Your task to perform on an android device: change alarm snooze length Image 0: 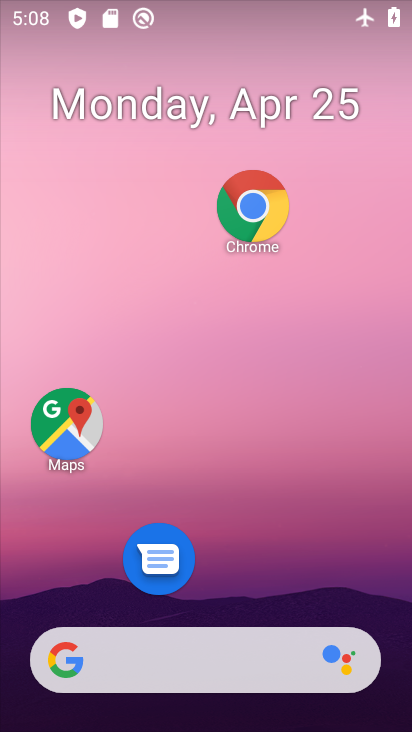
Step 0: drag from (271, 548) to (231, 170)
Your task to perform on an android device: change alarm snooze length Image 1: 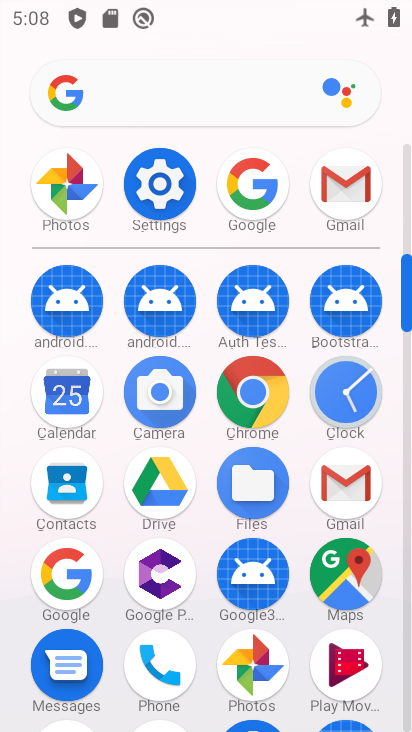
Step 1: click (349, 411)
Your task to perform on an android device: change alarm snooze length Image 2: 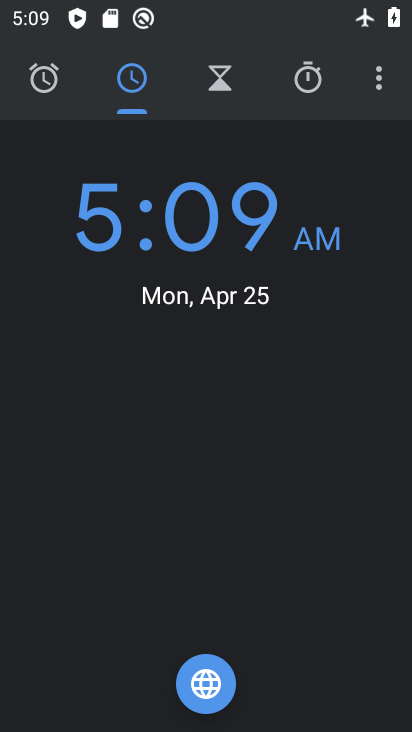
Step 2: click (377, 90)
Your task to perform on an android device: change alarm snooze length Image 3: 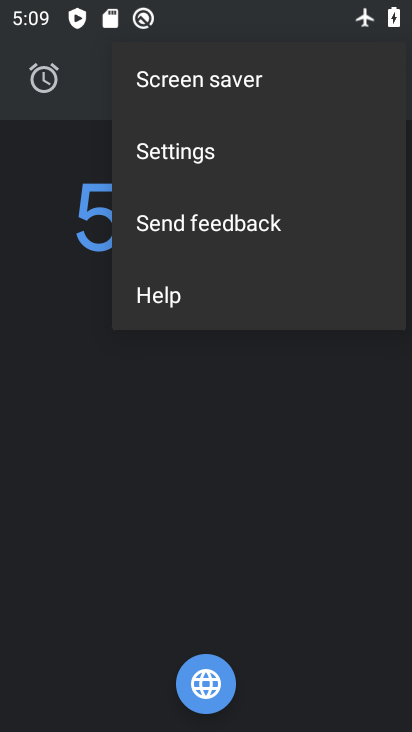
Step 3: click (171, 153)
Your task to perform on an android device: change alarm snooze length Image 4: 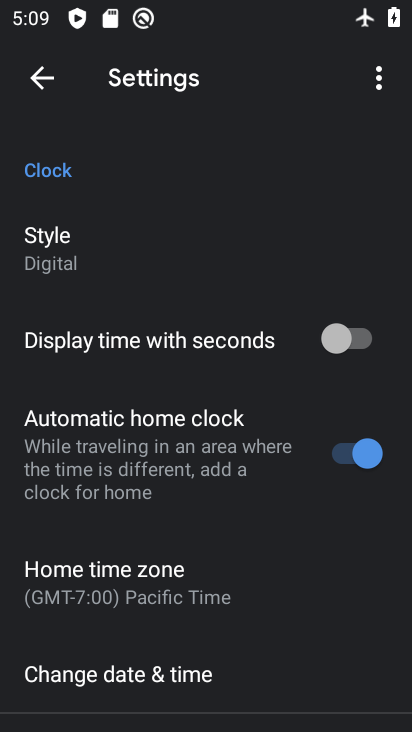
Step 4: drag from (145, 643) to (163, 368)
Your task to perform on an android device: change alarm snooze length Image 5: 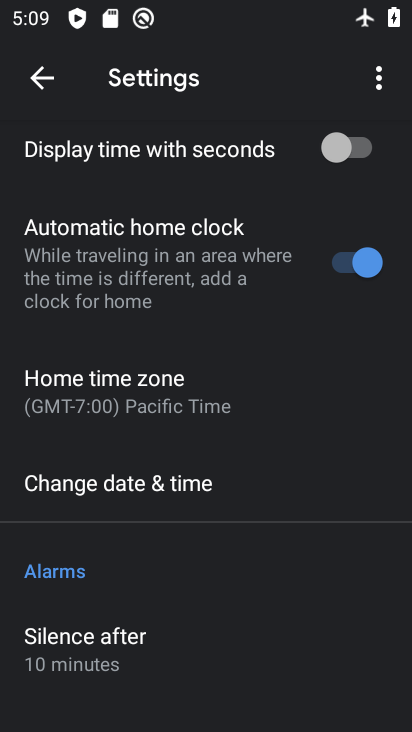
Step 5: drag from (119, 557) to (148, 296)
Your task to perform on an android device: change alarm snooze length Image 6: 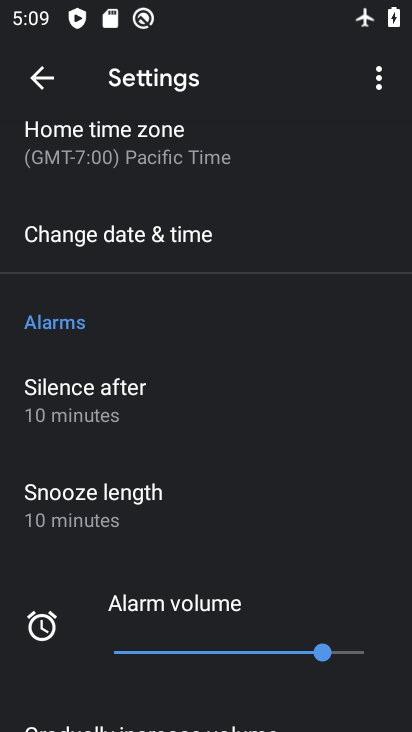
Step 6: click (93, 498)
Your task to perform on an android device: change alarm snooze length Image 7: 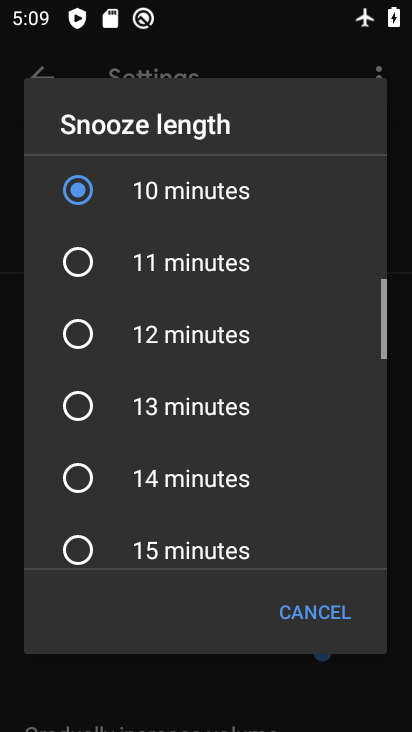
Step 7: click (94, 487)
Your task to perform on an android device: change alarm snooze length Image 8: 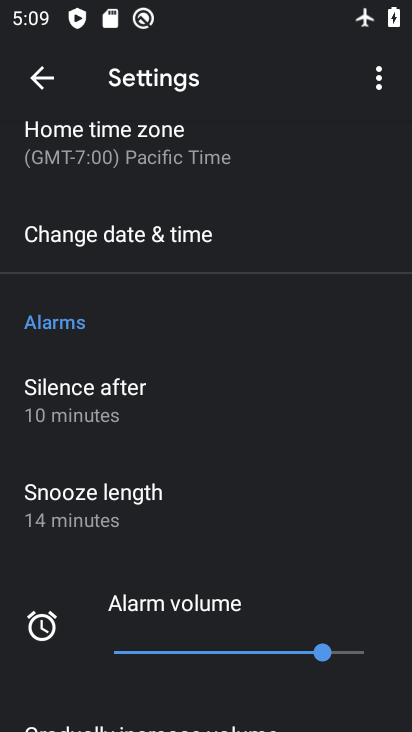
Step 8: task complete